Your task to perform on an android device: Go to accessibility settings Image 0: 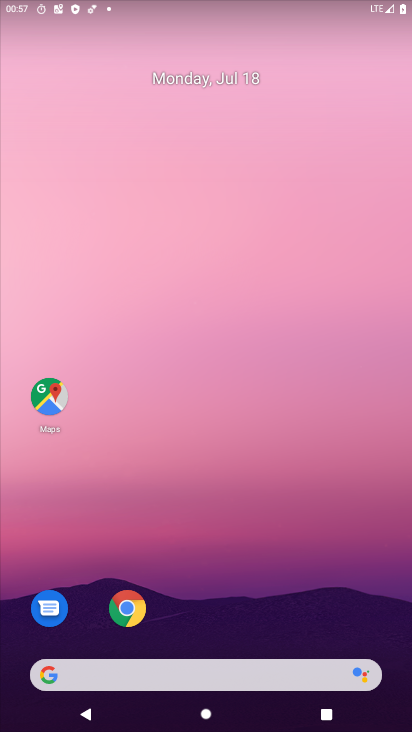
Step 0: drag from (316, 563) to (331, 0)
Your task to perform on an android device: Go to accessibility settings Image 1: 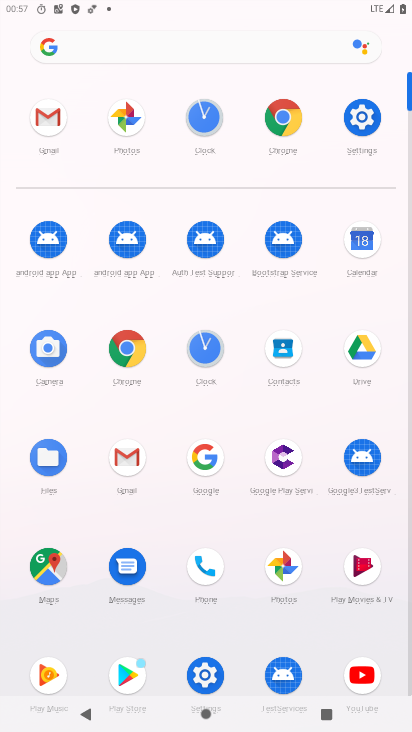
Step 1: click (370, 108)
Your task to perform on an android device: Go to accessibility settings Image 2: 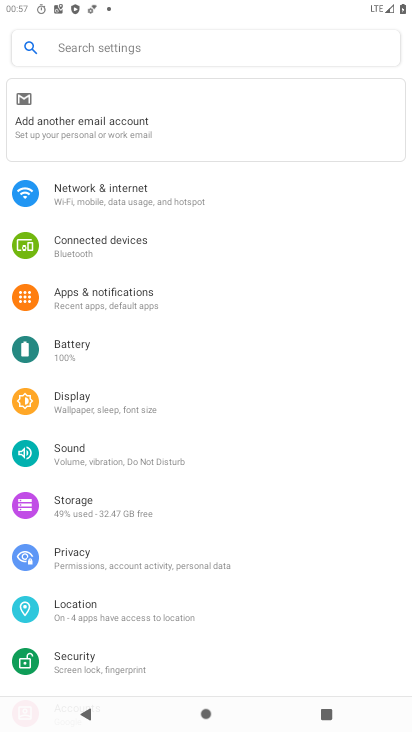
Step 2: drag from (129, 553) to (214, 124)
Your task to perform on an android device: Go to accessibility settings Image 3: 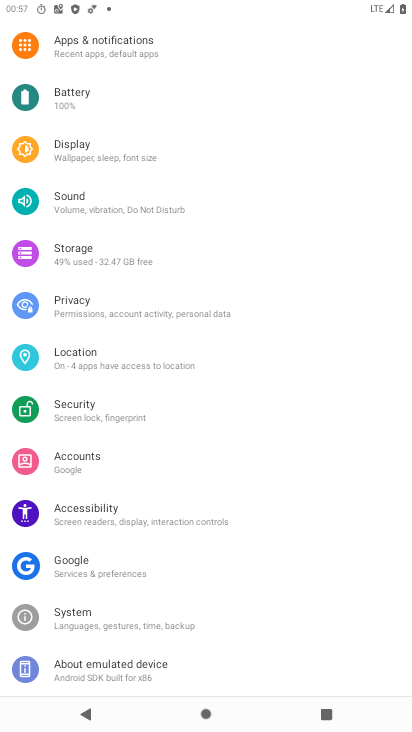
Step 3: click (103, 518)
Your task to perform on an android device: Go to accessibility settings Image 4: 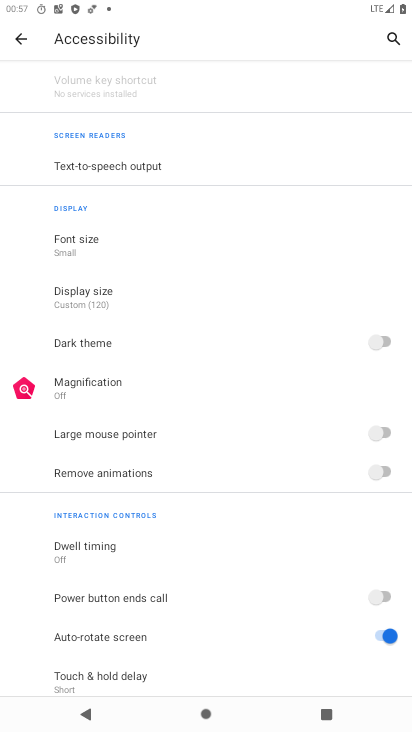
Step 4: task complete